Your task to perform on an android device: uninstall "Facebook Messenger" Image 0: 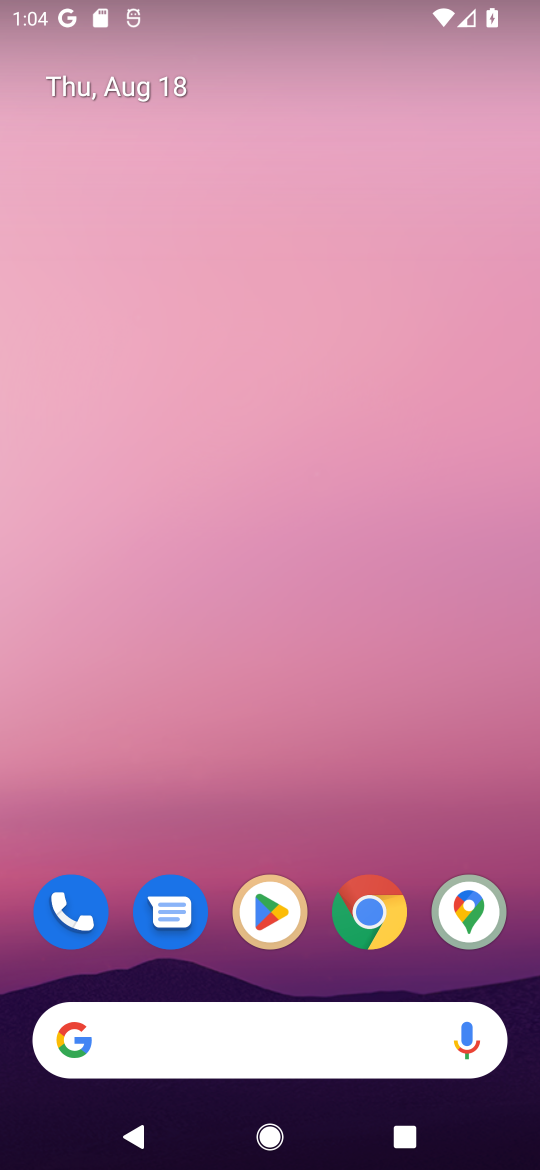
Step 0: click (268, 904)
Your task to perform on an android device: uninstall "Facebook Messenger" Image 1: 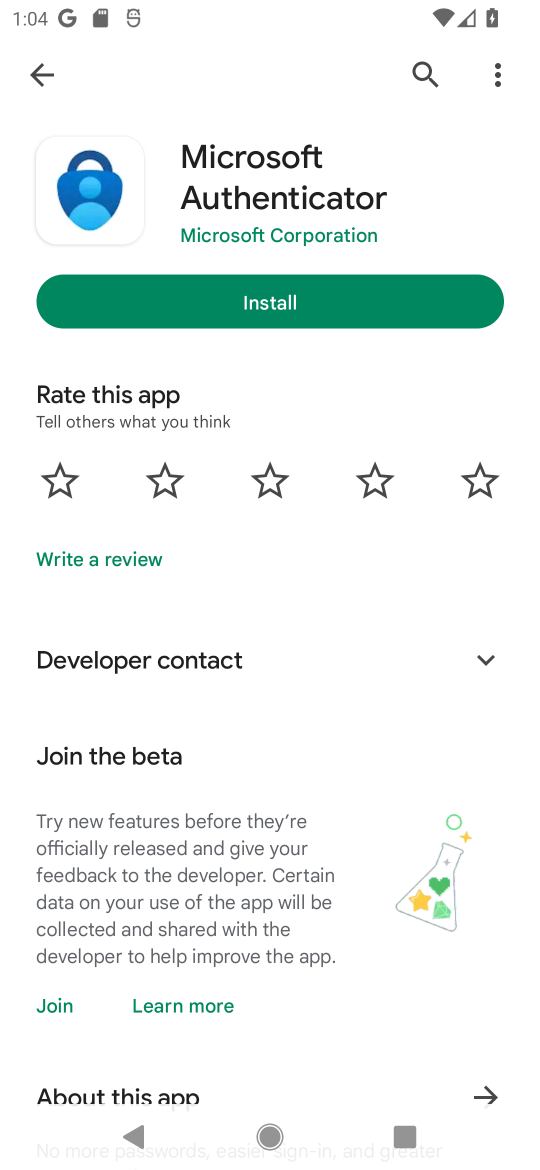
Step 1: click (422, 59)
Your task to perform on an android device: uninstall "Facebook Messenger" Image 2: 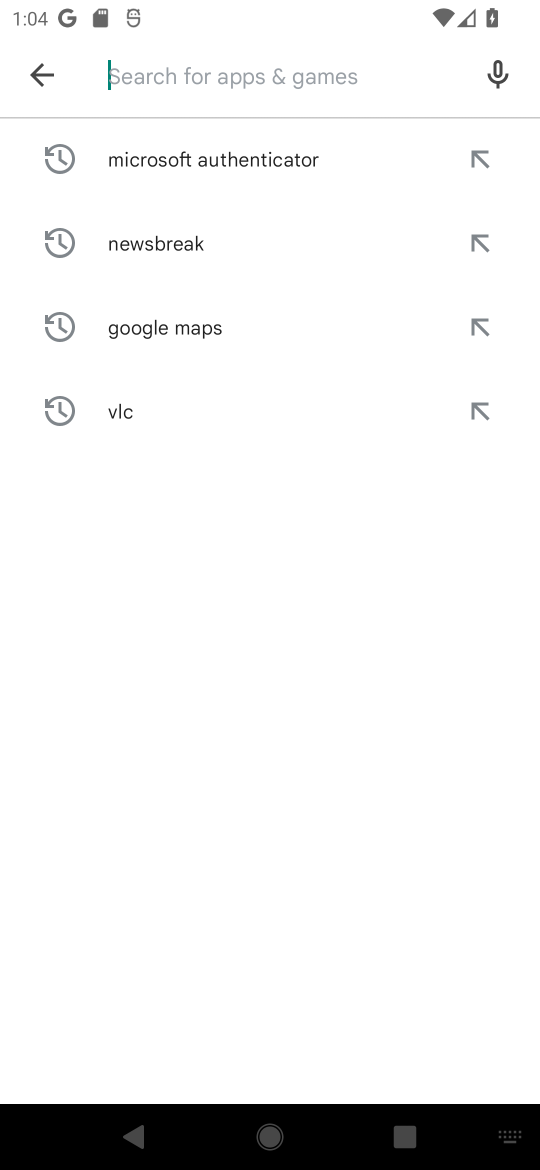
Step 2: click (198, 70)
Your task to perform on an android device: uninstall "Facebook Messenger" Image 3: 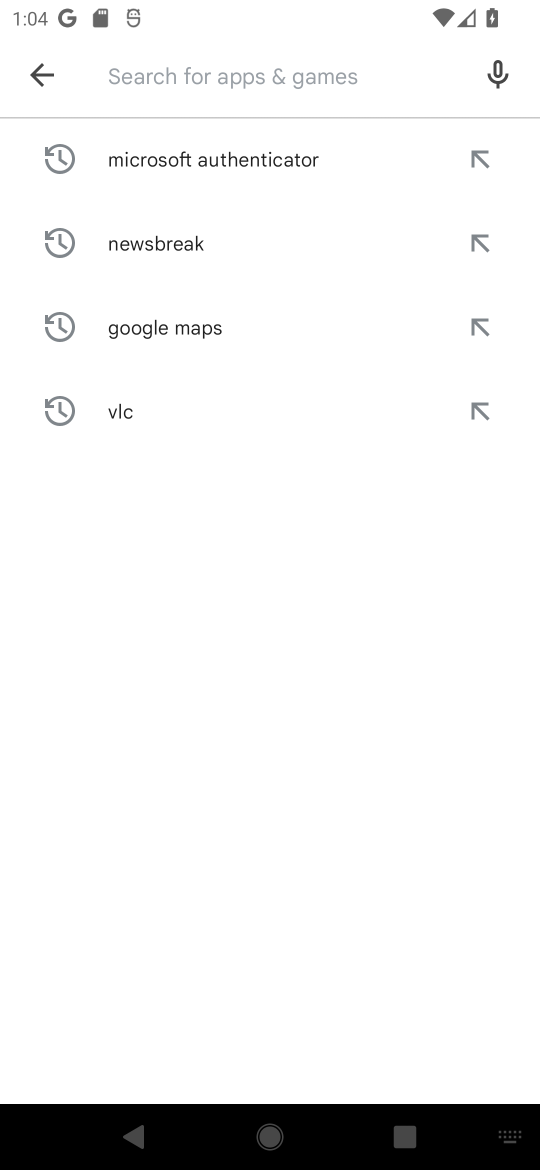
Step 3: click (136, 68)
Your task to perform on an android device: uninstall "Facebook Messenger" Image 4: 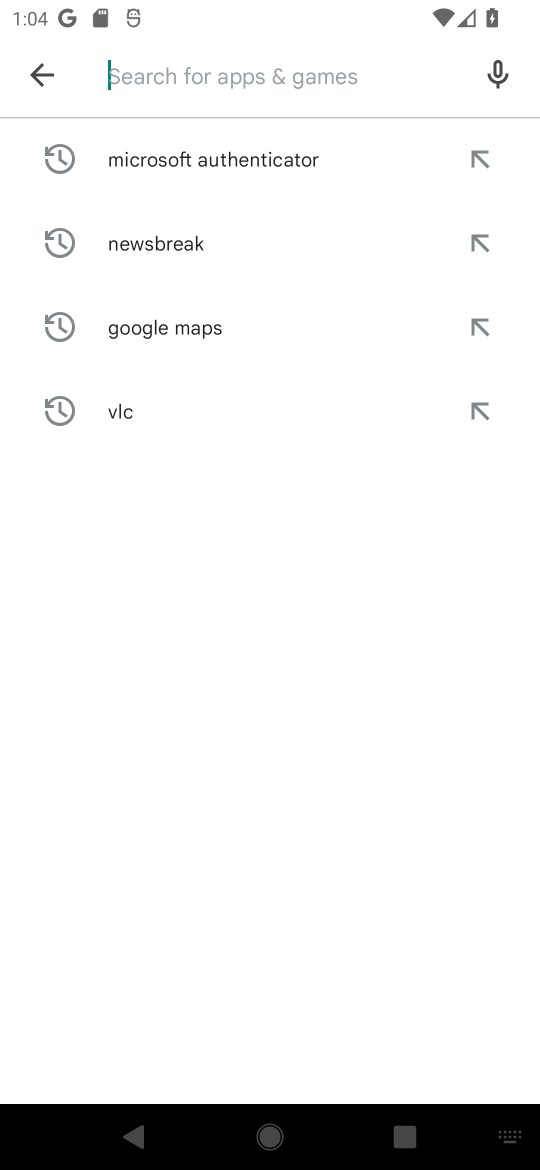
Step 4: type "Facebook Messenger"
Your task to perform on an android device: uninstall "Facebook Messenger" Image 5: 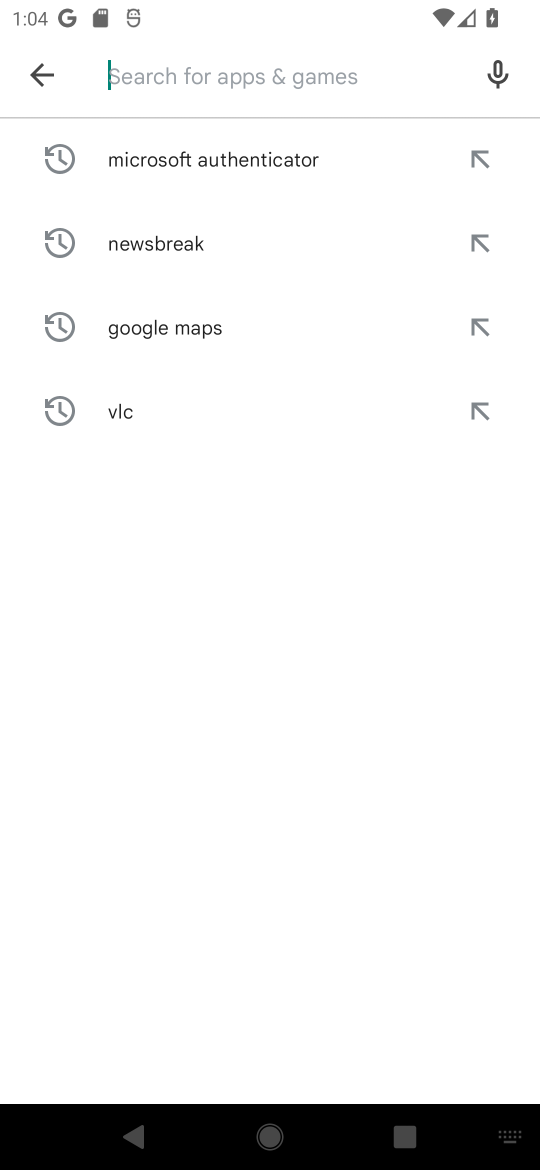
Step 5: click (333, 668)
Your task to perform on an android device: uninstall "Facebook Messenger" Image 6: 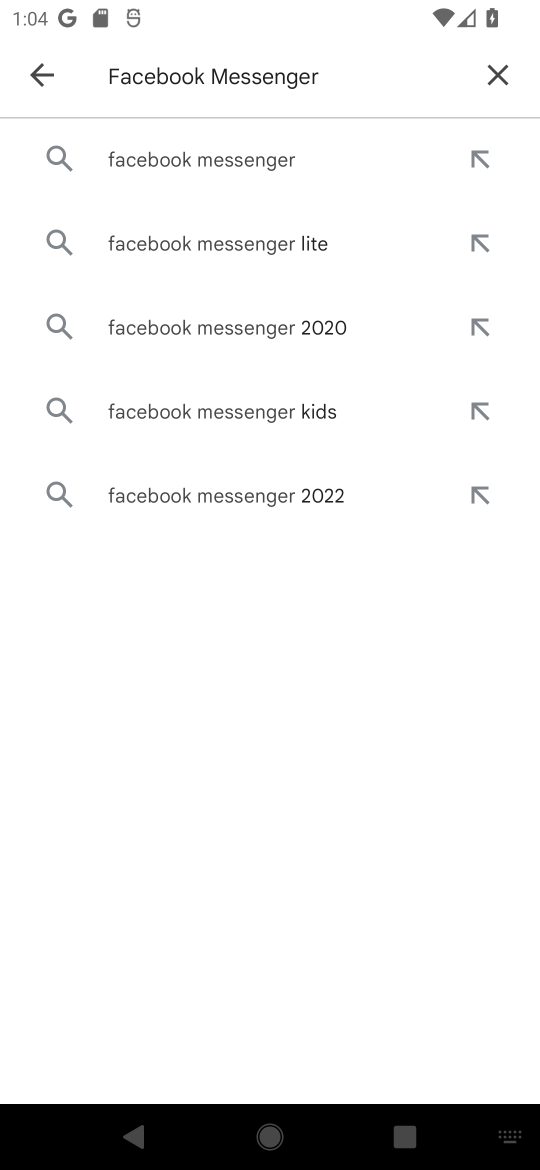
Step 6: click (247, 177)
Your task to perform on an android device: uninstall "Facebook Messenger" Image 7: 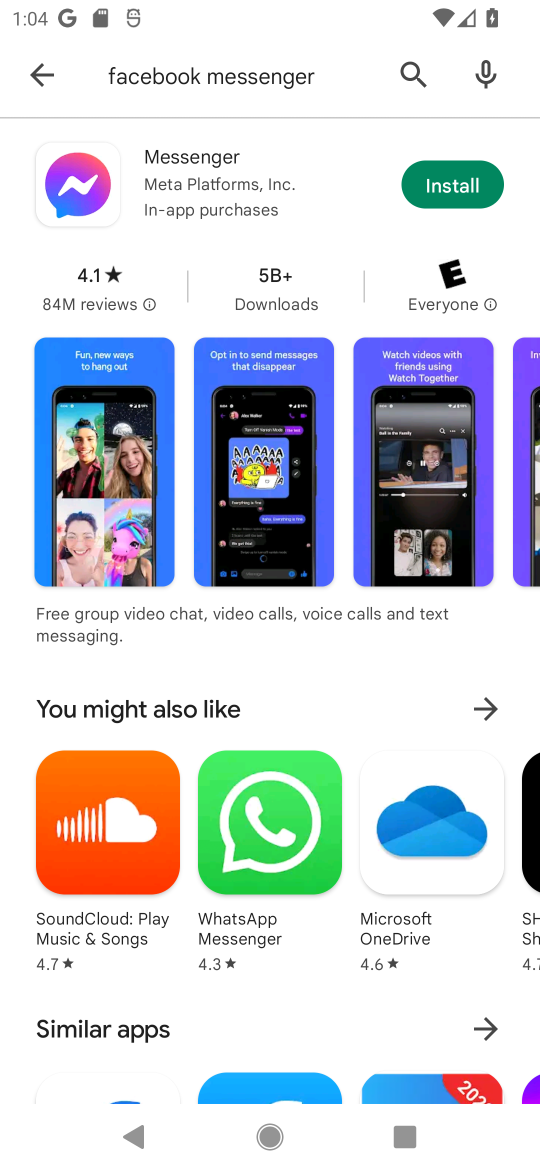
Step 7: task complete